Your task to perform on an android device: Open Google Maps and go to "Timeline" Image 0: 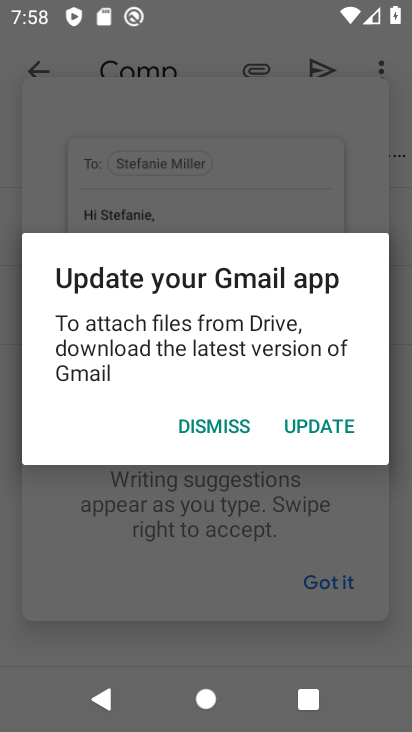
Step 0: press home button
Your task to perform on an android device: Open Google Maps and go to "Timeline" Image 1: 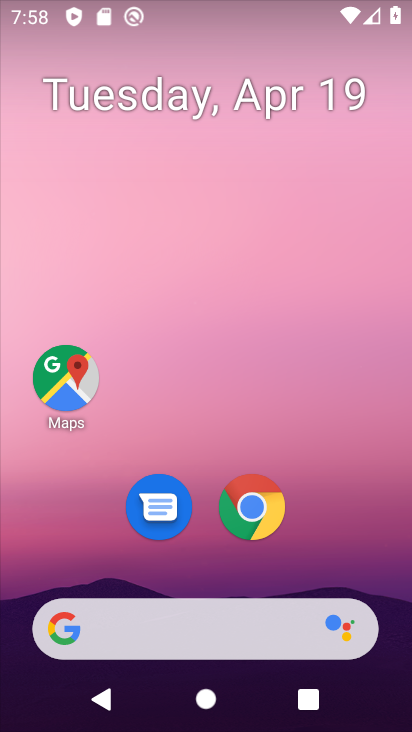
Step 1: click (73, 382)
Your task to perform on an android device: Open Google Maps and go to "Timeline" Image 2: 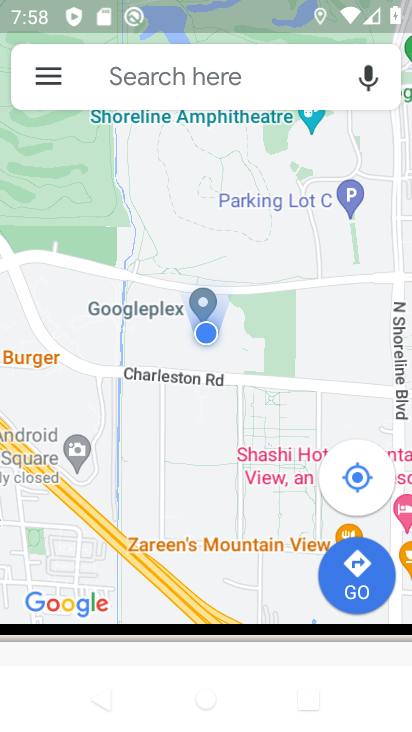
Step 2: click (45, 74)
Your task to perform on an android device: Open Google Maps and go to "Timeline" Image 3: 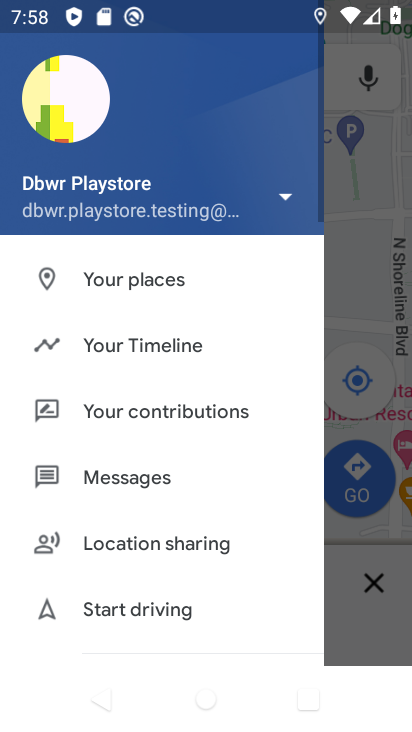
Step 3: click (131, 347)
Your task to perform on an android device: Open Google Maps and go to "Timeline" Image 4: 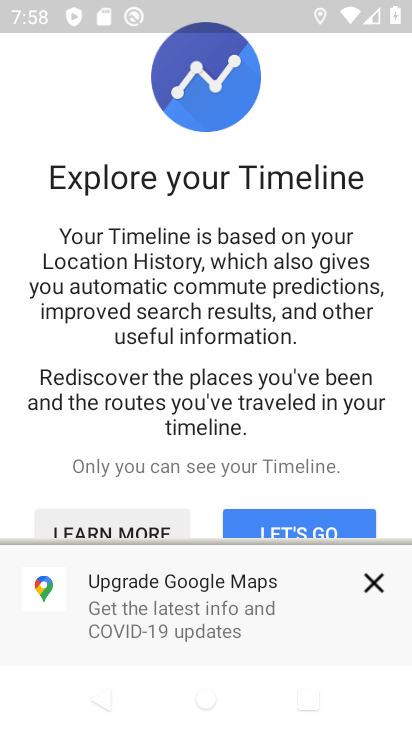
Step 4: task complete